Your task to perform on an android device: Open display settings Image 0: 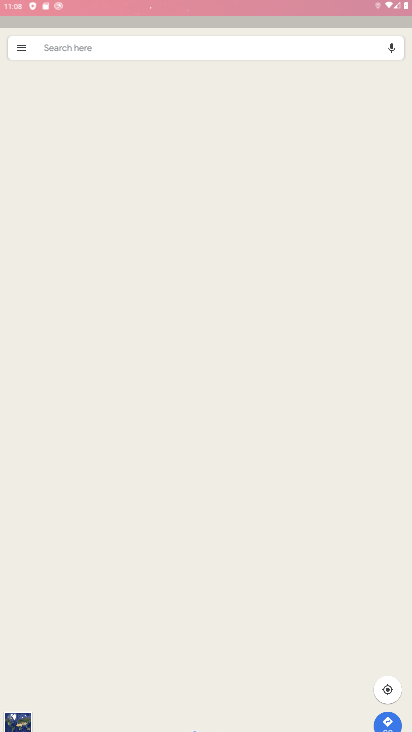
Step 0: drag from (227, 172) to (222, 13)
Your task to perform on an android device: Open display settings Image 1: 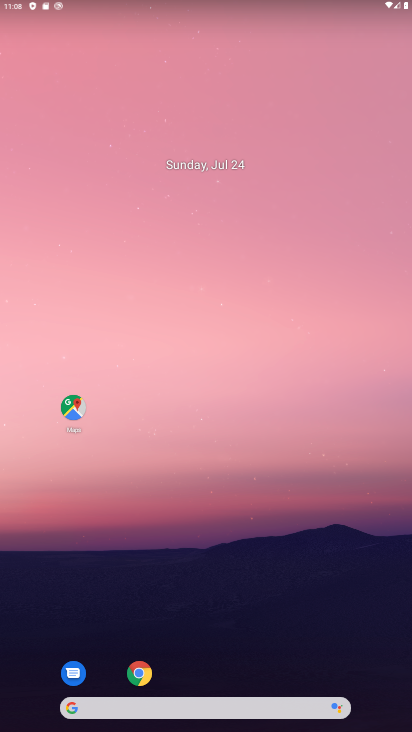
Step 1: drag from (314, 586) to (235, 1)
Your task to perform on an android device: Open display settings Image 2: 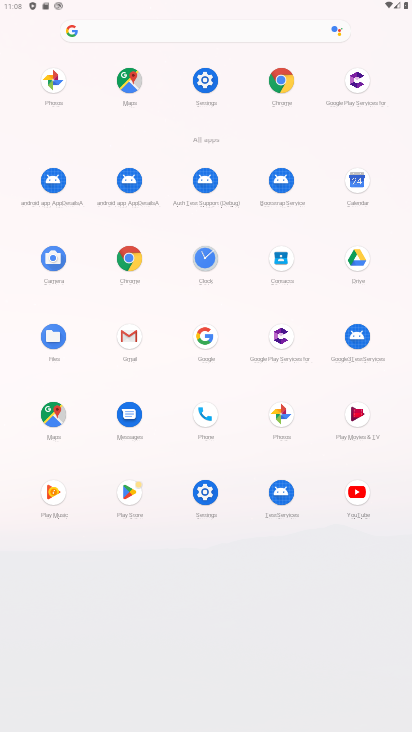
Step 2: click (212, 81)
Your task to perform on an android device: Open display settings Image 3: 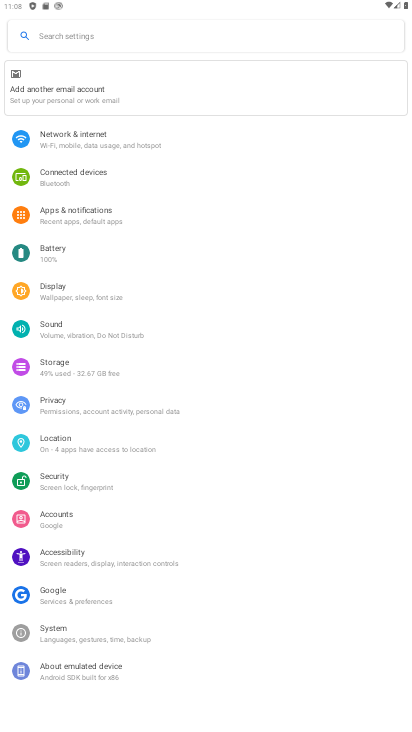
Step 3: click (91, 301)
Your task to perform on an android device: Open display settings Image 4: 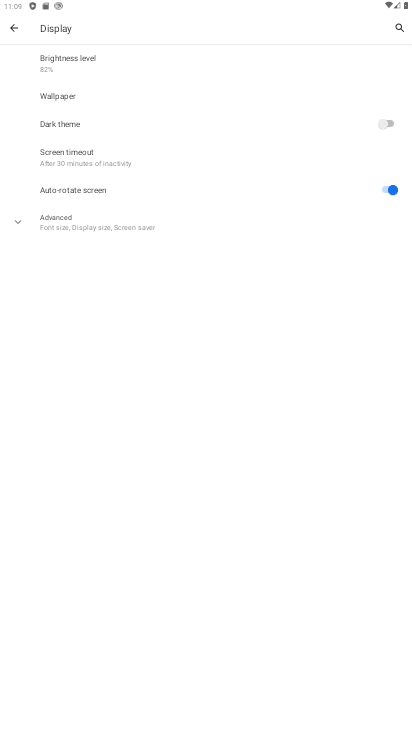
Step 4: task complete